Your task to perform on an android device: Search for the best rated headphones on Amazon Image 0: 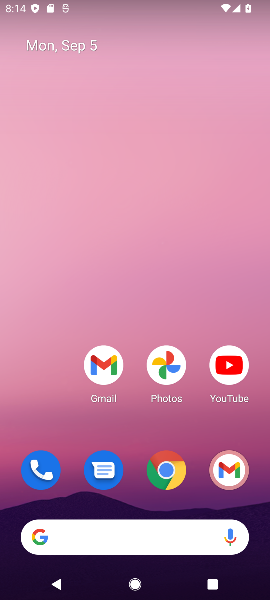
Step 0: click (96, 527)
Your task to perform on an android device: Search for the best rated headphones on Amazon Image 1: 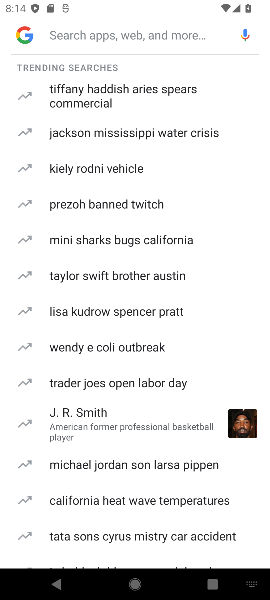
Step 1: type "amezon"
Your task to perform on an android device: Search for the best rated headphones on Amazon Image 2: 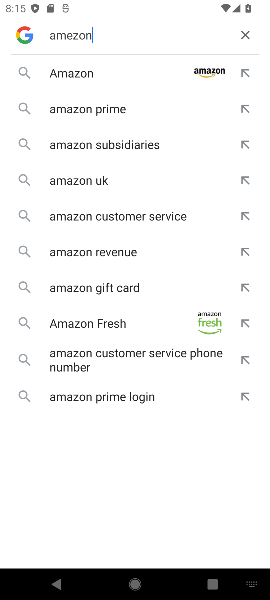
Step 2: click (64, 67)
Your task to perform on an android device: Search for the best rated headphones on Amazon Image 3: 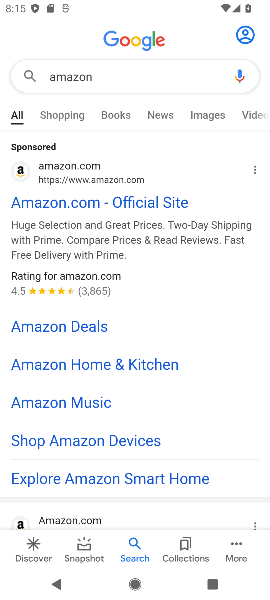
Step 3: click (62, 195)
Your task to perform on an android device: Search for the best rated headphones on Amazon Image 4: 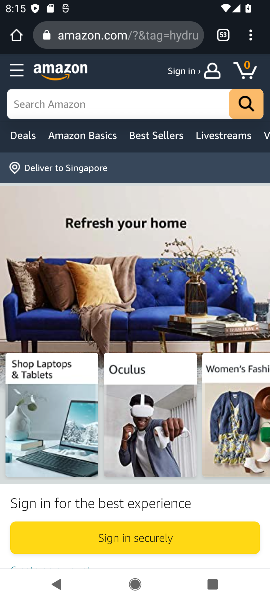
Step 4: click (79, 101)
Your task to perform on an android device: Search for the best rated headphones on Amazon Image 5: 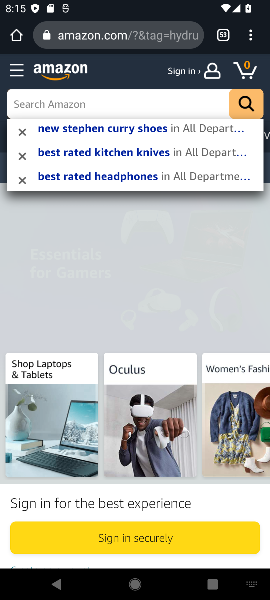
Step 5: click (136, 175)
Your task to perform on an android device: Search for the best rated headphones on Amazon Image 6: 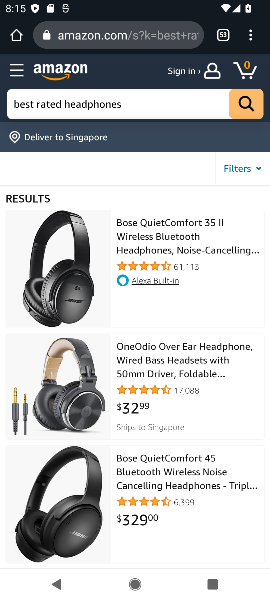
Step 6: task complete